Your task to perform on an android device: toggle javascript in the chrome app Image 0: 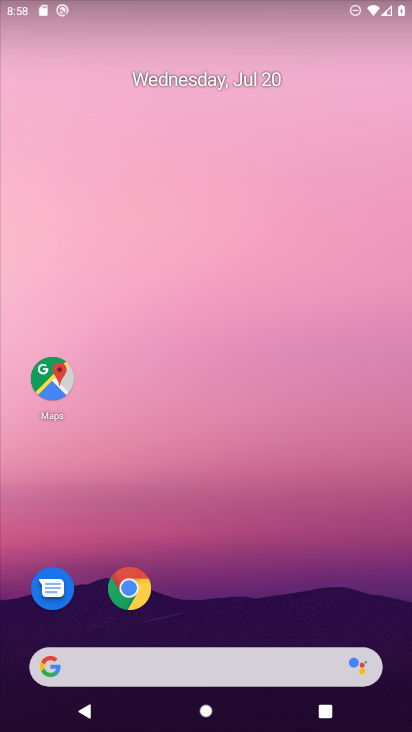
Step 0: click (134, 602)
Your task to perform on an android device: toggle javascript in the chrome app Image 1: 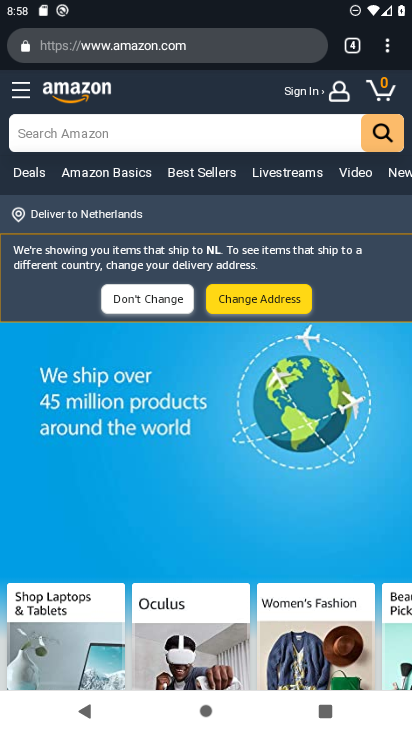
Step 1: click (393, 59)
Your task to perform on an android device: toggle javascript in the chrome app Image 2: 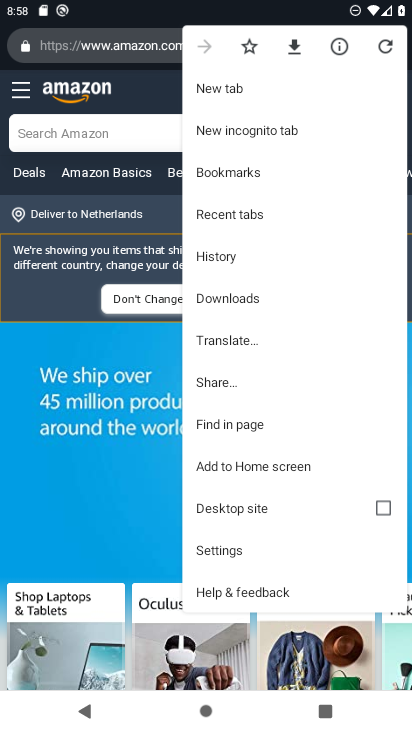
Step 2: click (226, 559)
Your task to perform on an android device: toggle javascript in the chrome app Image 3: 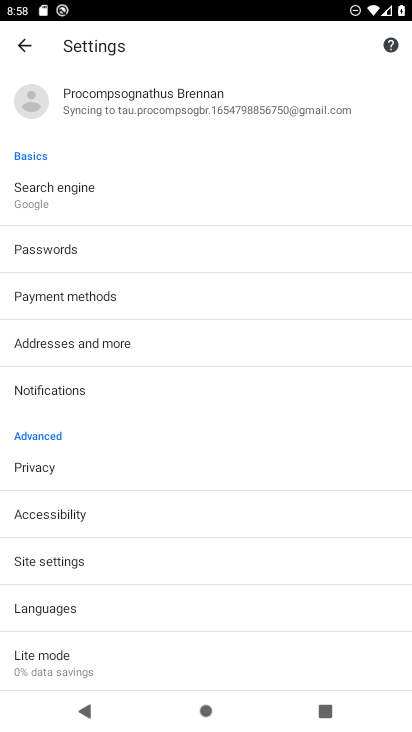
Step 3: click (209, 565)
Your task to perform on an android device: toggle javascript in the chrome app Image 4: 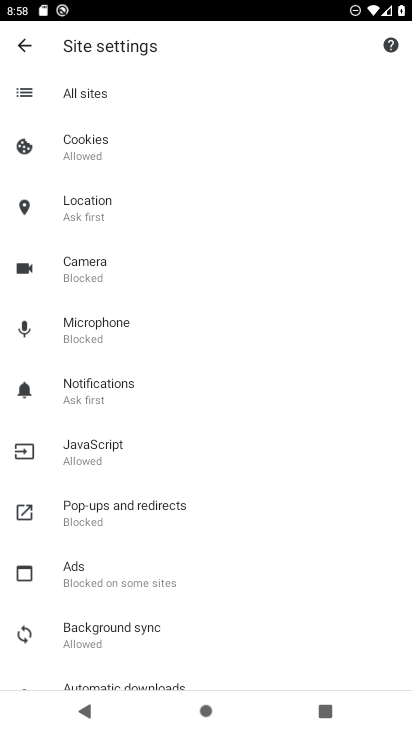
Step 4: click (119, 452)
Your task to perform on an android device: toggle javascript in the chrome app Image 5: 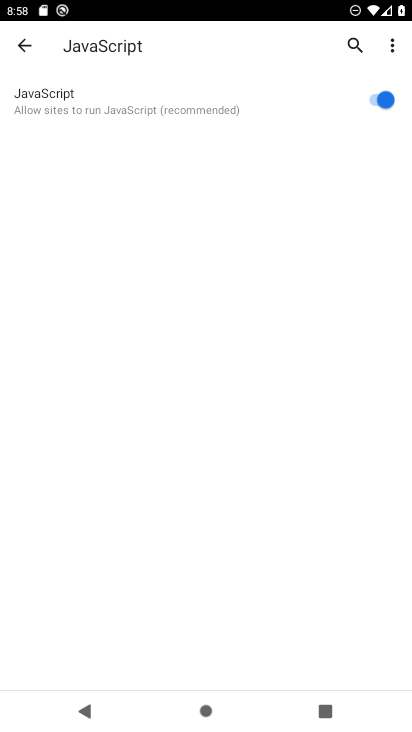
Step 5: click (379, 85)
Your task to perform on an android device: toggle javascript in the chrome app Image 6: 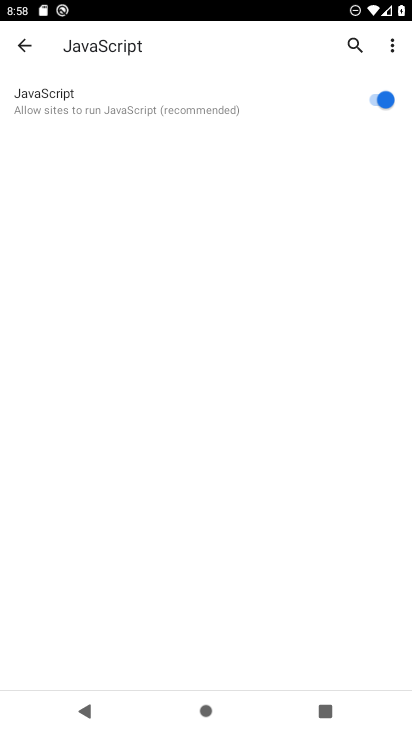
Step 6: click (379, 85)
Your task to perform on an android device: toggle javascript in the chrome app Image 7: 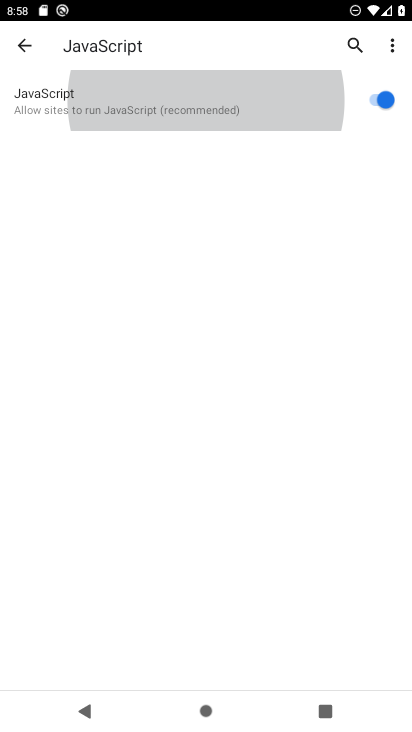
Step 7: click (379, 85)
Your task to perform on an android device: toggle javascript in the chrome app Image 8: 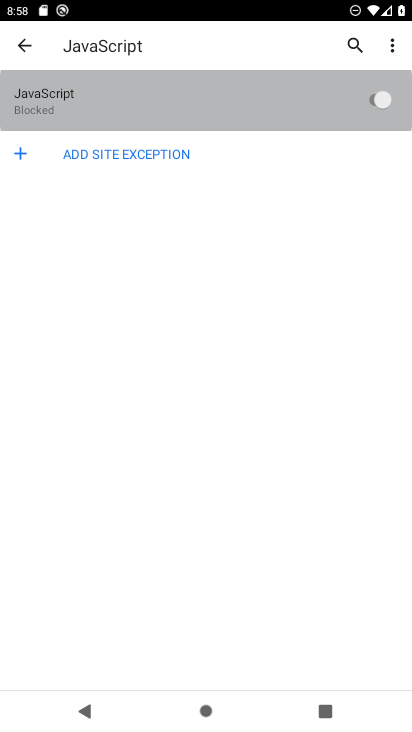
Step 8: click (379, 85)
Your task to perform on an android device: toggle javascript in the chrome app Image 9: 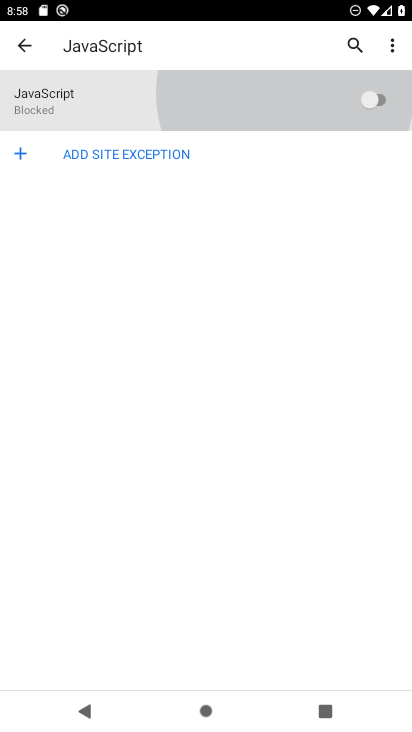
Step 9: click (379, 85)
Your task to perform on an android device: toggle javascript in the chrome app Image 10: 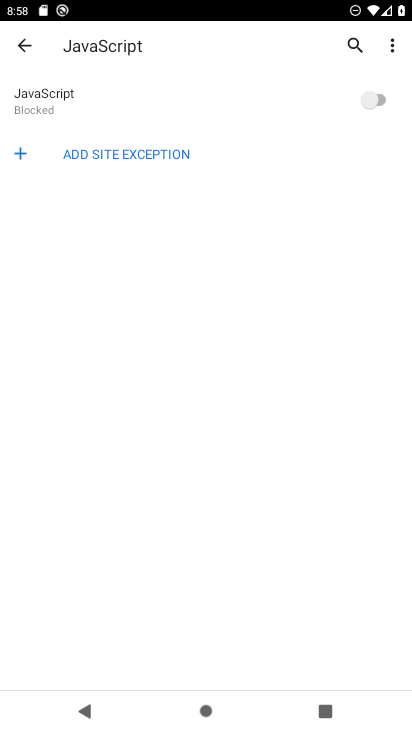
Step 10: task complete